Your task to perform on an android device: delete browsing data in the chrome app Image 0: 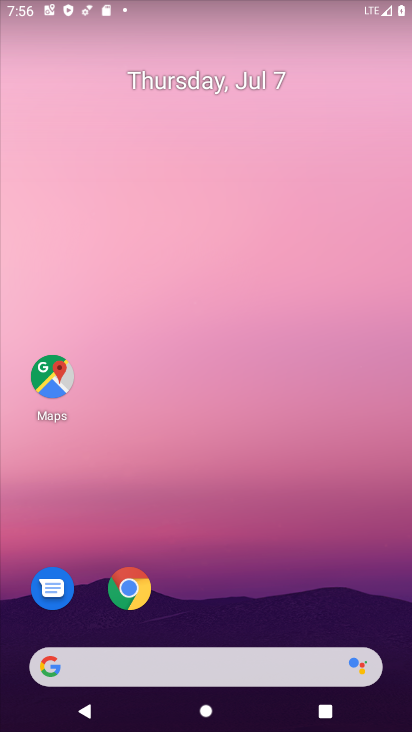
Step 0: drag from (326, 549) to (290, 78)
Your task to perform on an android device: delete browsing data in the chrome app Image 1: 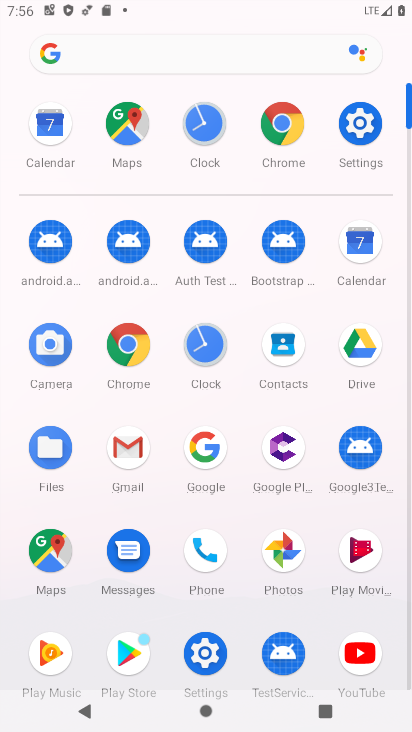
Step 1: click (279, 117)
Your task to perform on an android device: delete browsing data in the chrome app Image 2: 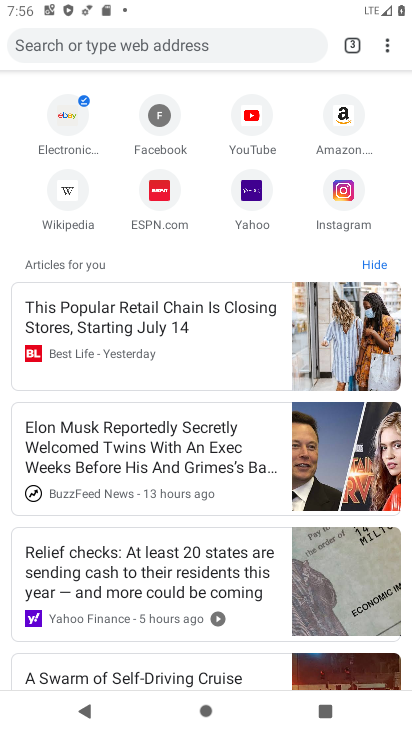
Step 2: click (391, 47)
Your task to perform on an android device: delete browsing data in the chrome app Image 3: 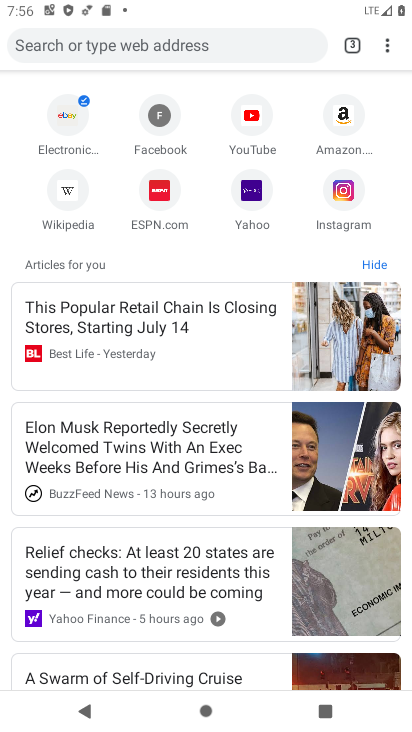
Step 3: click (388, 38)
Your task to perform on an android device: delete browsing data in the chrome app Image 4: 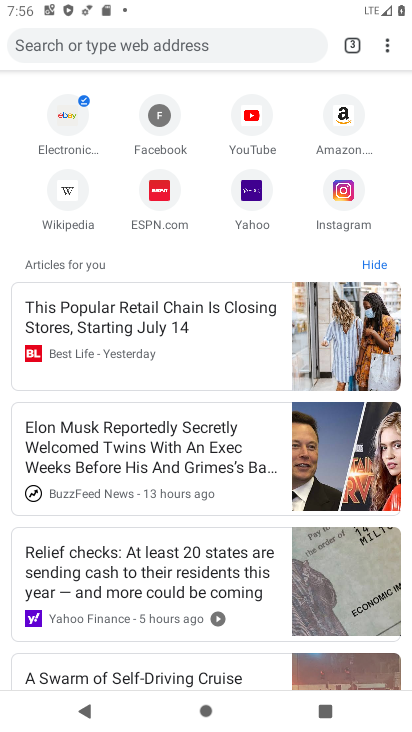
Step 4: click (388, 38)
Your task to perform on an android device: delete browsing data in the chrome app Image 5: 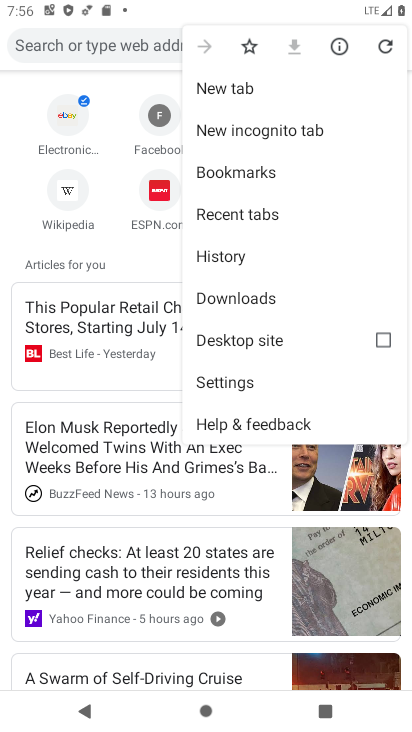
Step 5: click (231, 387)
Your task to perform on an android device: delete browsing data in the chrome app Image 6: 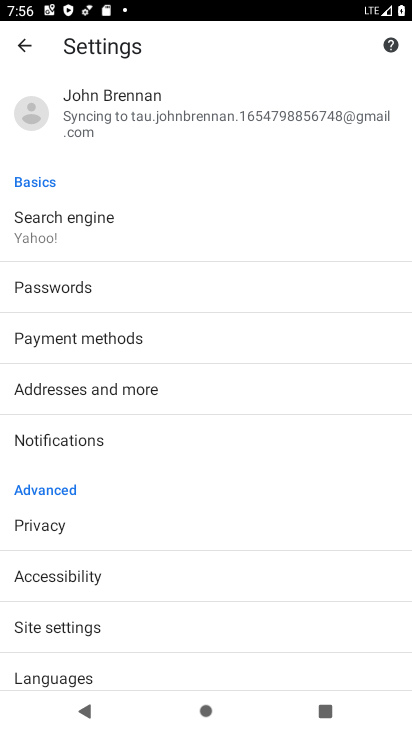
Step 6: drag from (130, 604) to (188, 222)
Your task to perform on an android device: delete browsing data in the chrome app Image 7: 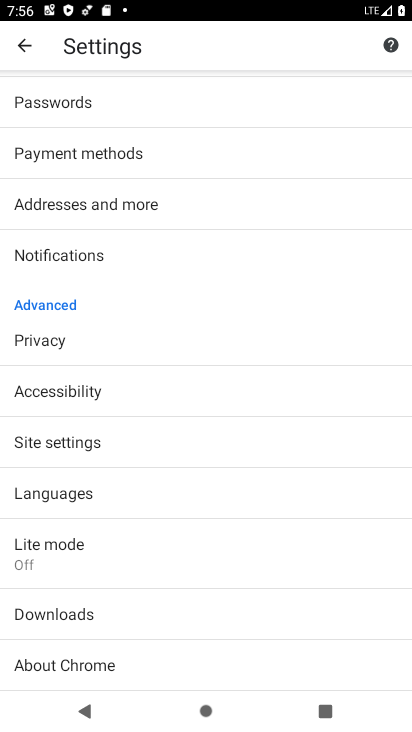
Step 7: click (60, 339)
Your task to perform on an android device: delete browsing data in the chrome app Image 8: 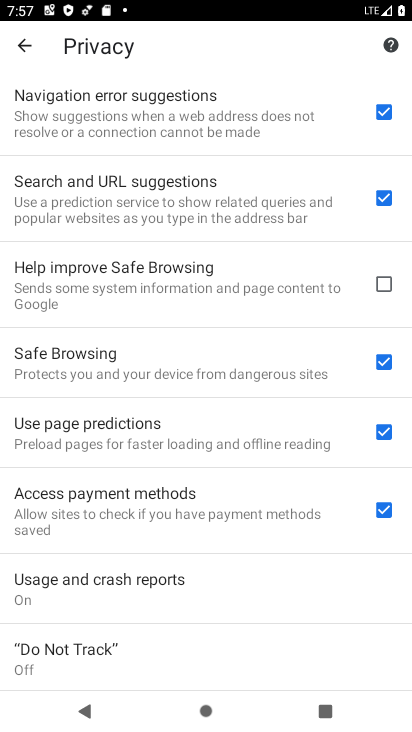
Step 8: drag from (202, 631) to (248, 250)
Your task to perform on an android device: delete browsing data in the chrome app Image 9: 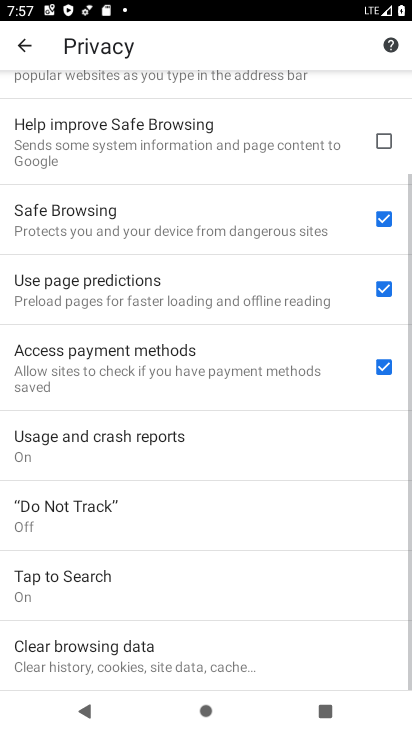
Step 9: click (134, 660)
Your task to perform on an android device: delete browsing data in the chrome app Image 10: 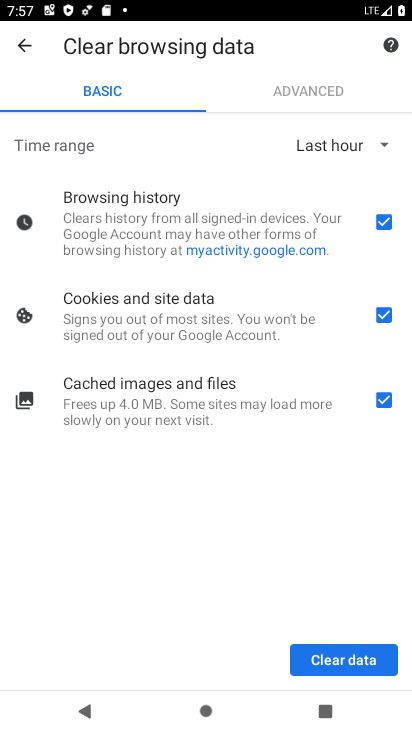
Step 10: click (361, 665)
Your task to perform on an android device: delete browsing data in the chrome app Image 11: 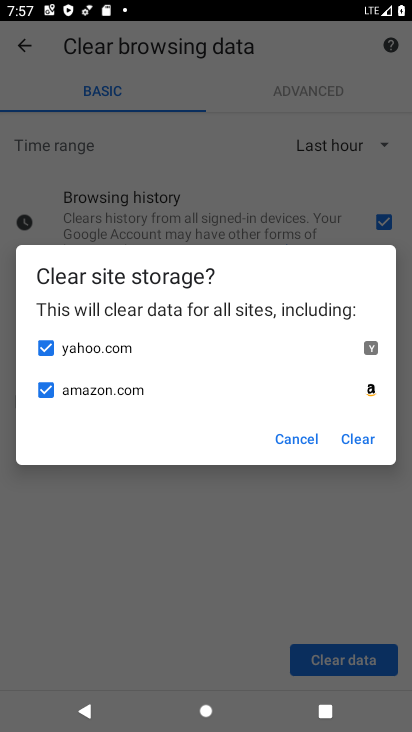
Step 11: click (365, 438)
Your task to perform on an android device: delete browsing data in the chrome app Image 12: 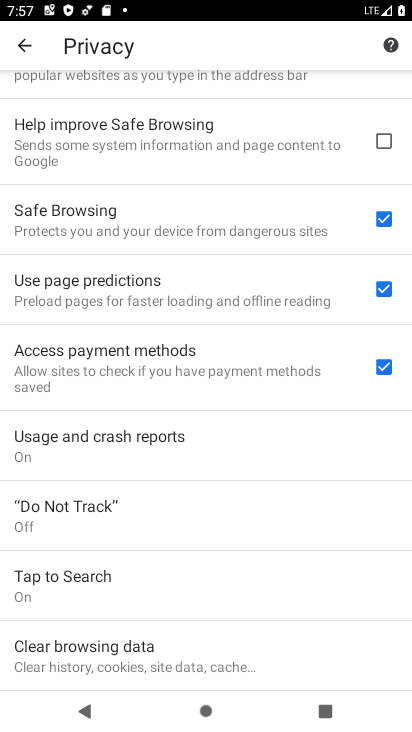
Step 12: task complete